Your task to perform on an android device: toggle wifi Image 0: 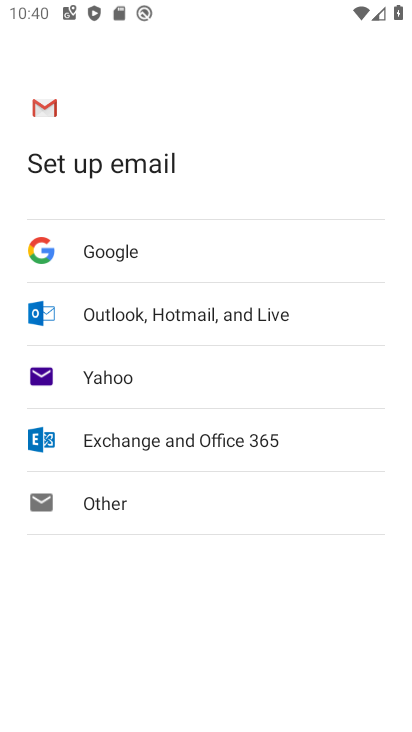
Step 0: press home button
Your task to perform on an android device: toggle wifi Image 1: 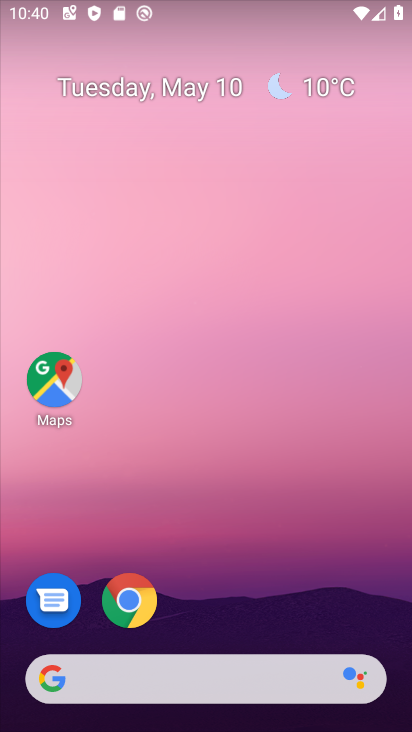
Step 1: click (203, 150)
Your task to perform on an android device: toggle wifi Image 2: 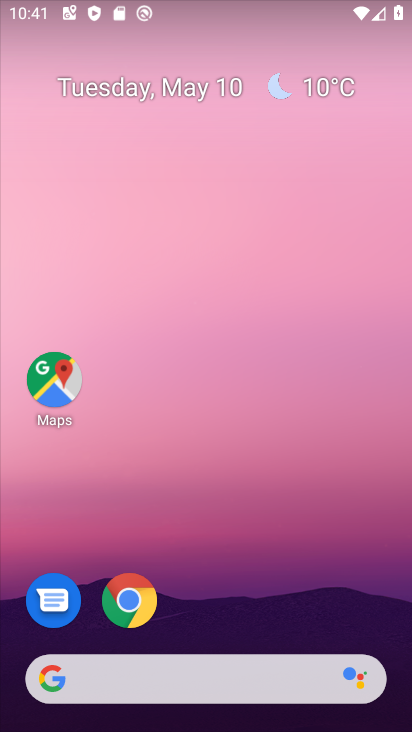
Step 2: drag from (231, 554) to (193, 126)
Your task to perform on an android device: toggle wifi Image 3: 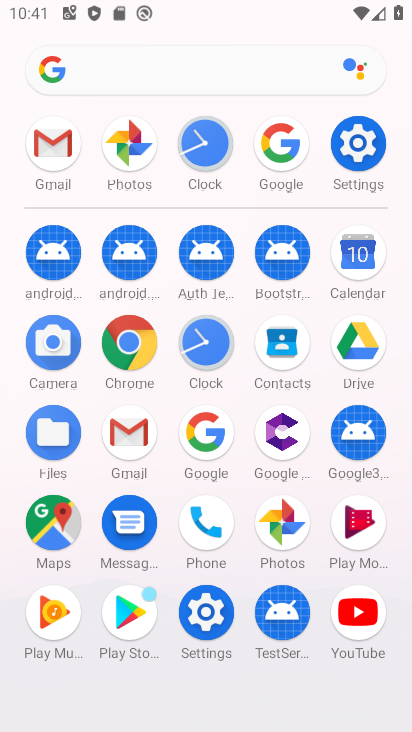
Step 3: click (362, 152)
Your task to perform on an android device: toggle wifi Image 4: 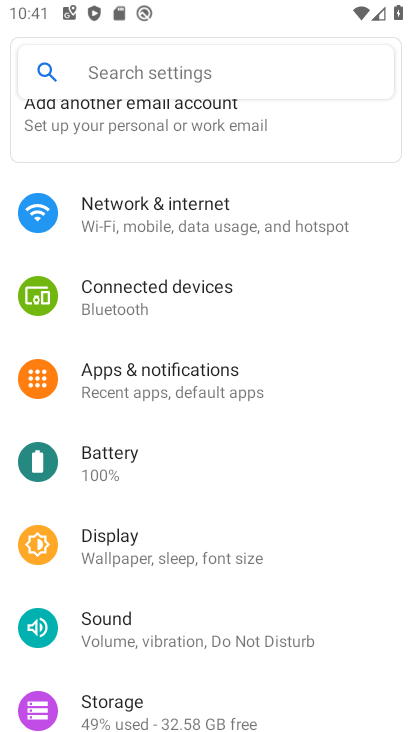
Step 4: click (192, 220)
Your task to perform on an android device: toggle wifi Image 5: 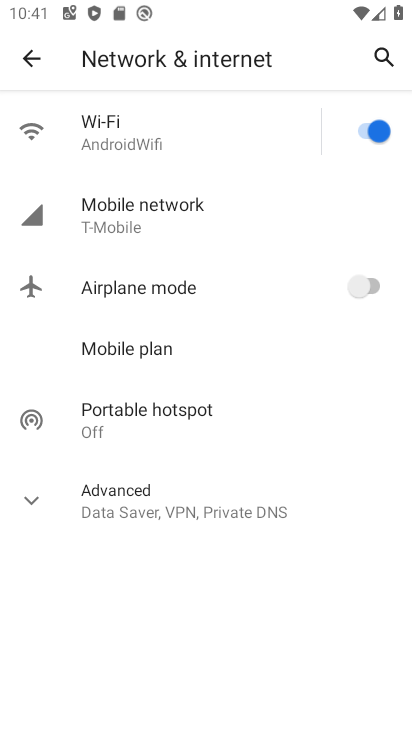
Step 5: click (192, 133)
Your task to perform on an android device: toggle wifi Image 6: 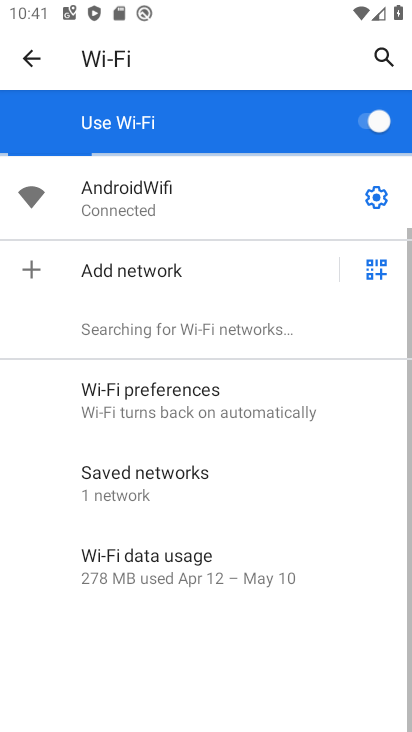
Step 6: click (371, 118)
Your task to perform on an android device: toggle wifi Image 7: 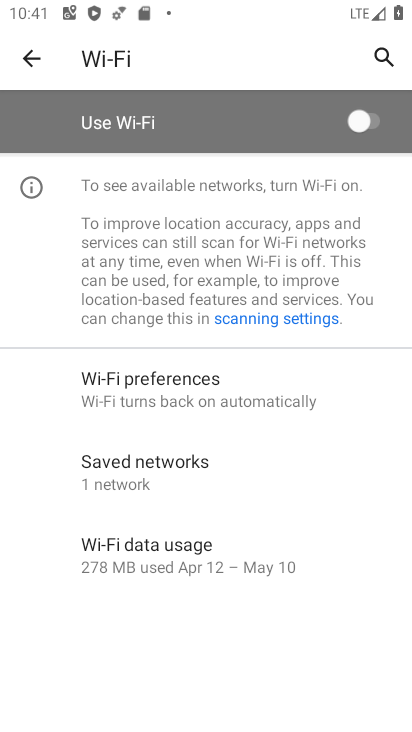
Step 7: task complete